Your task to perform on an android device: What's the weather? Image 0: 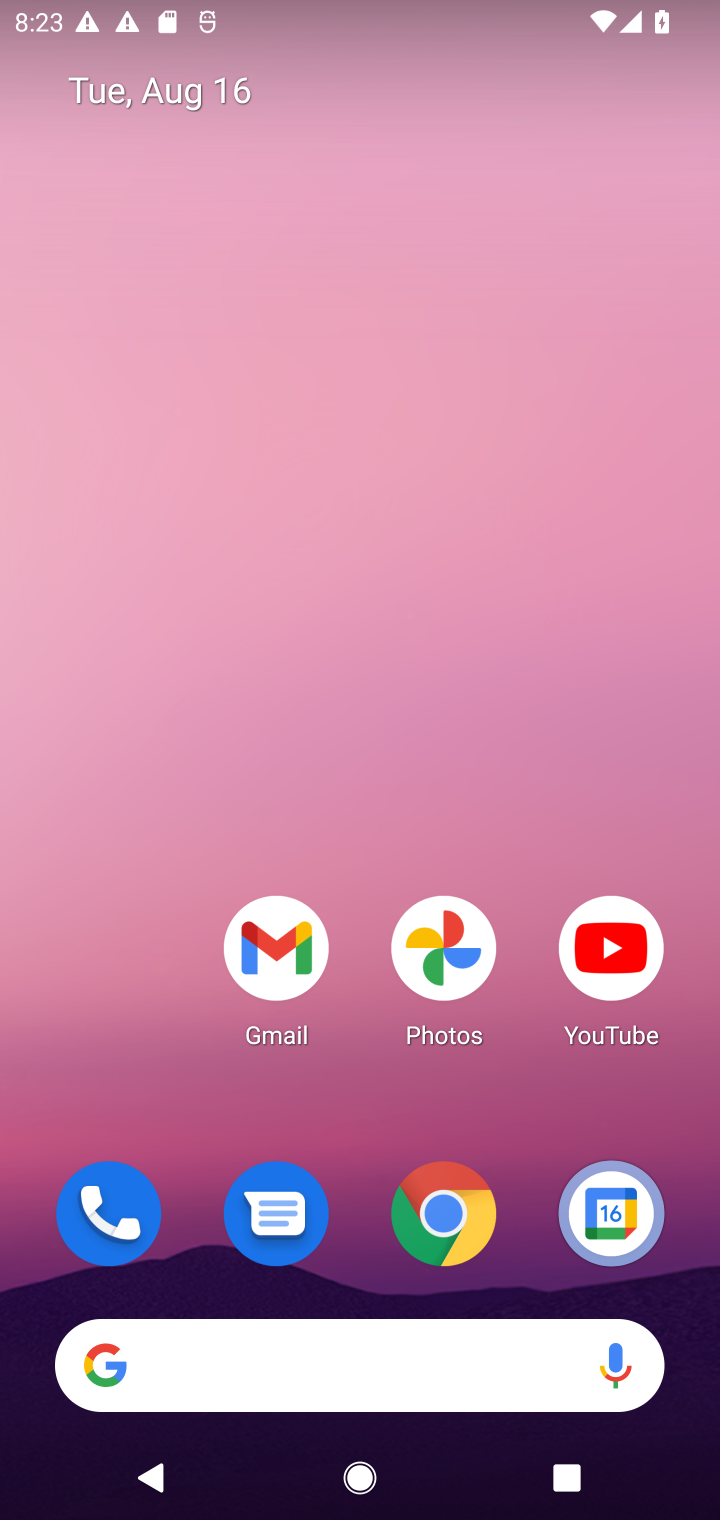
Step 0: drag from (333, 1278) to (428, 333)
Your task to perform on an android device: What's the weather? Image 1: 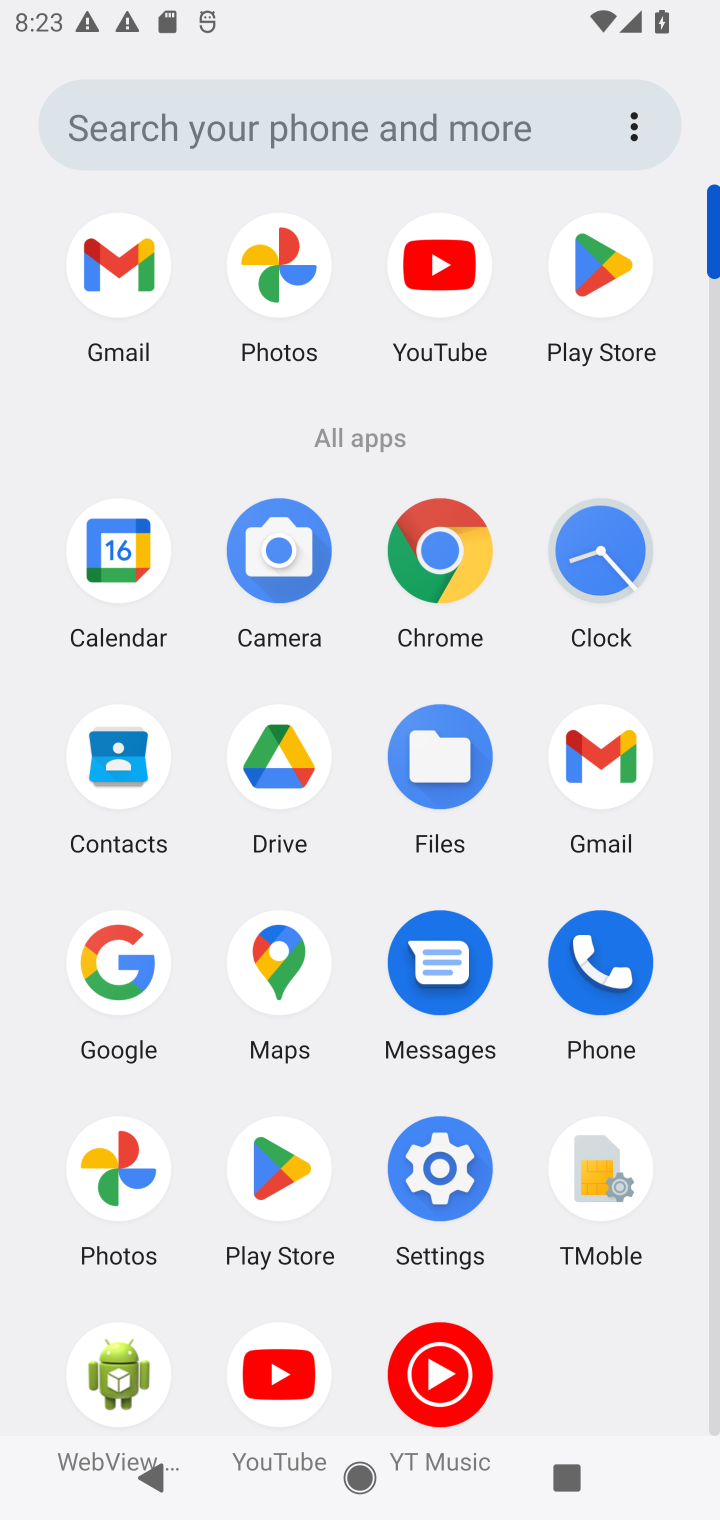
Step 1: click (424, 533)
Your task to perform on an android device: What's the weather? Image 2: 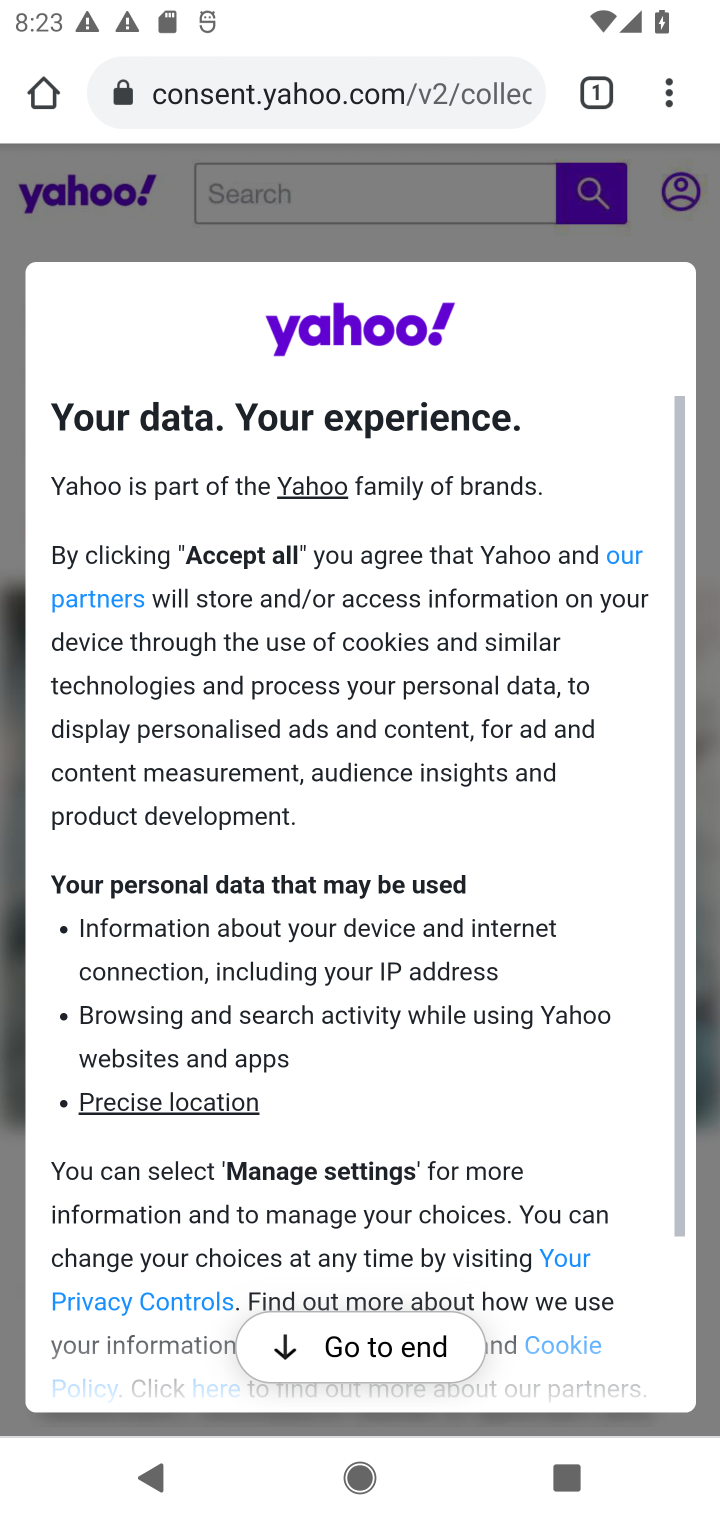
Step 2: click (674, 73)
Your task to perform on an android device: What's the weather? Image 3: 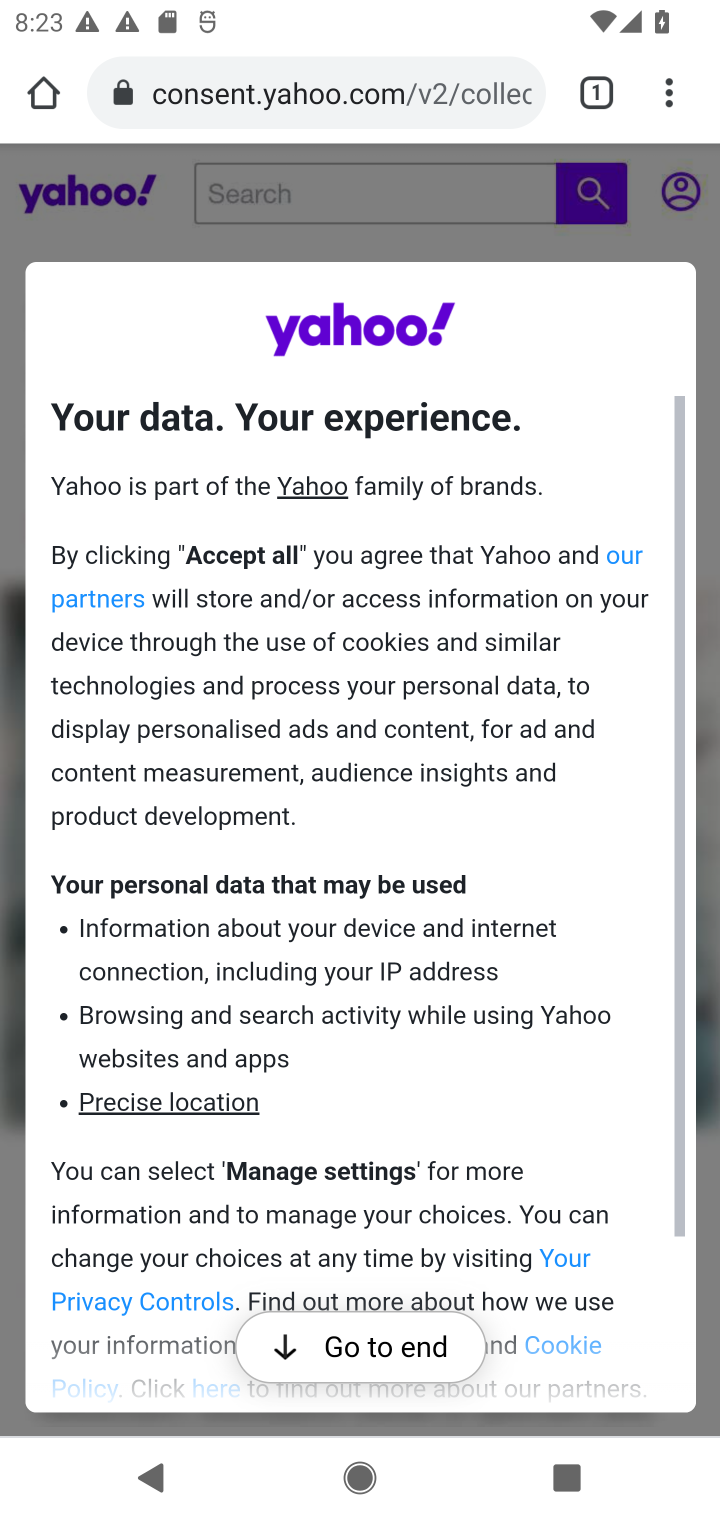
Step 3: click (665, 84)
Your task to perform on an android device: What's the weather? Image 4: 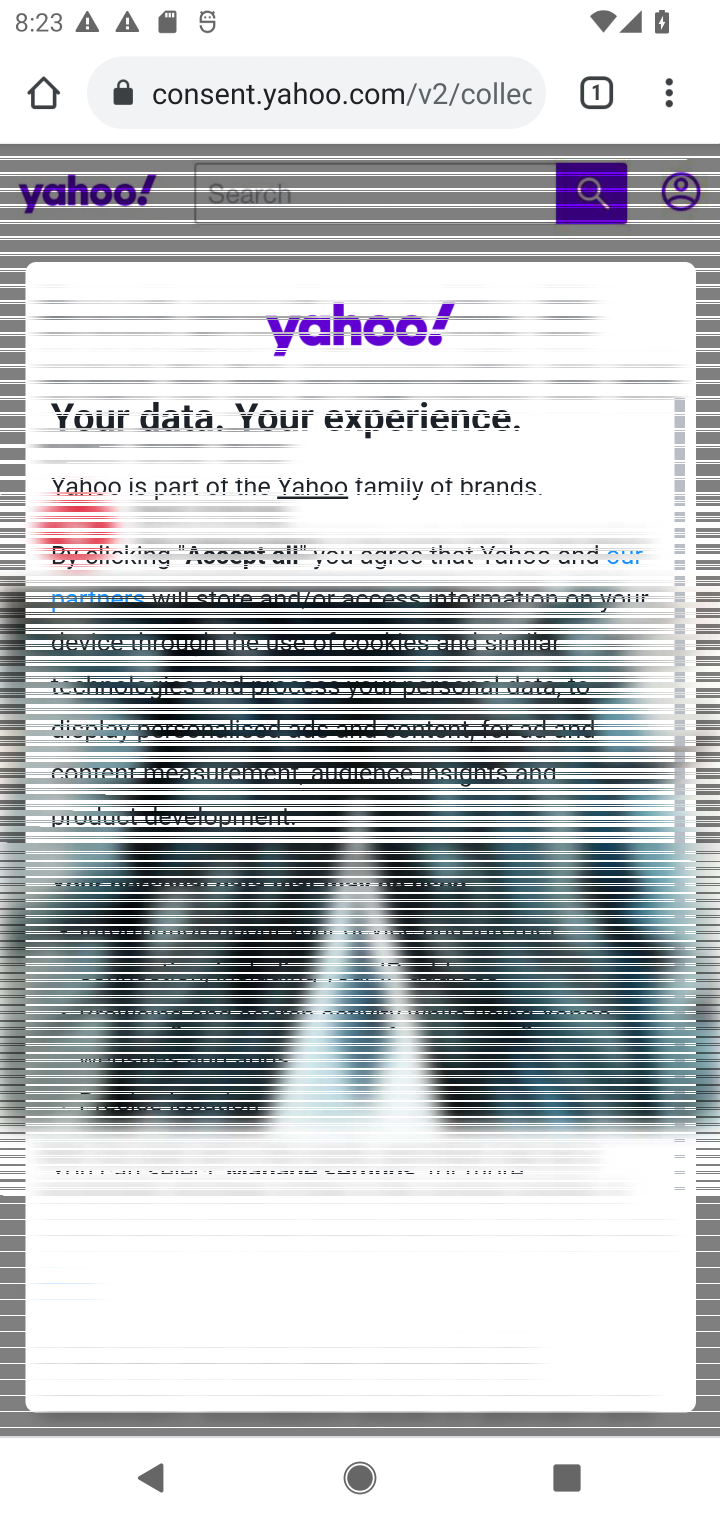
Step 4: click (665, 84)
Your task to perform on an android device: What's the weather? Image 5: 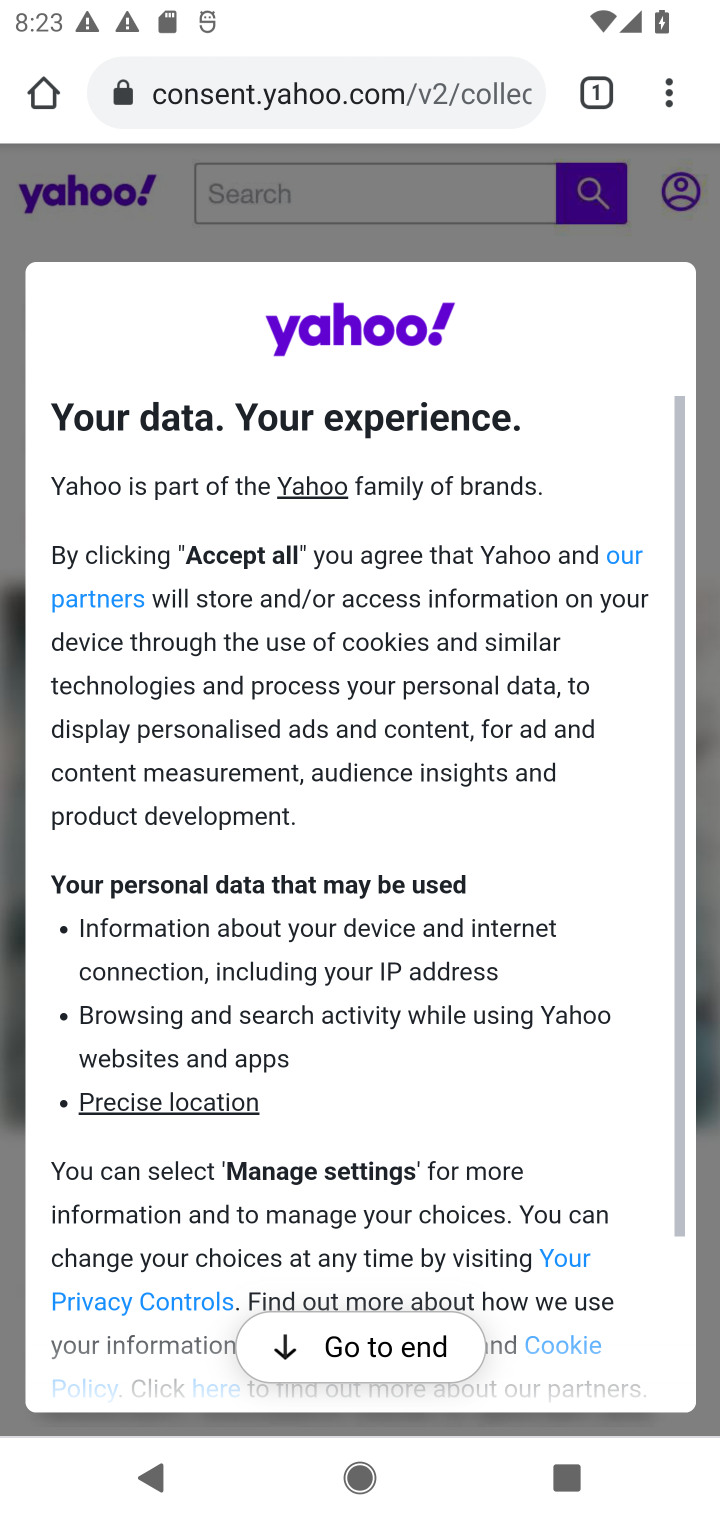
Step 5: click (665, 73)
Your task to perform on an android device: What's the weather? Image 6: 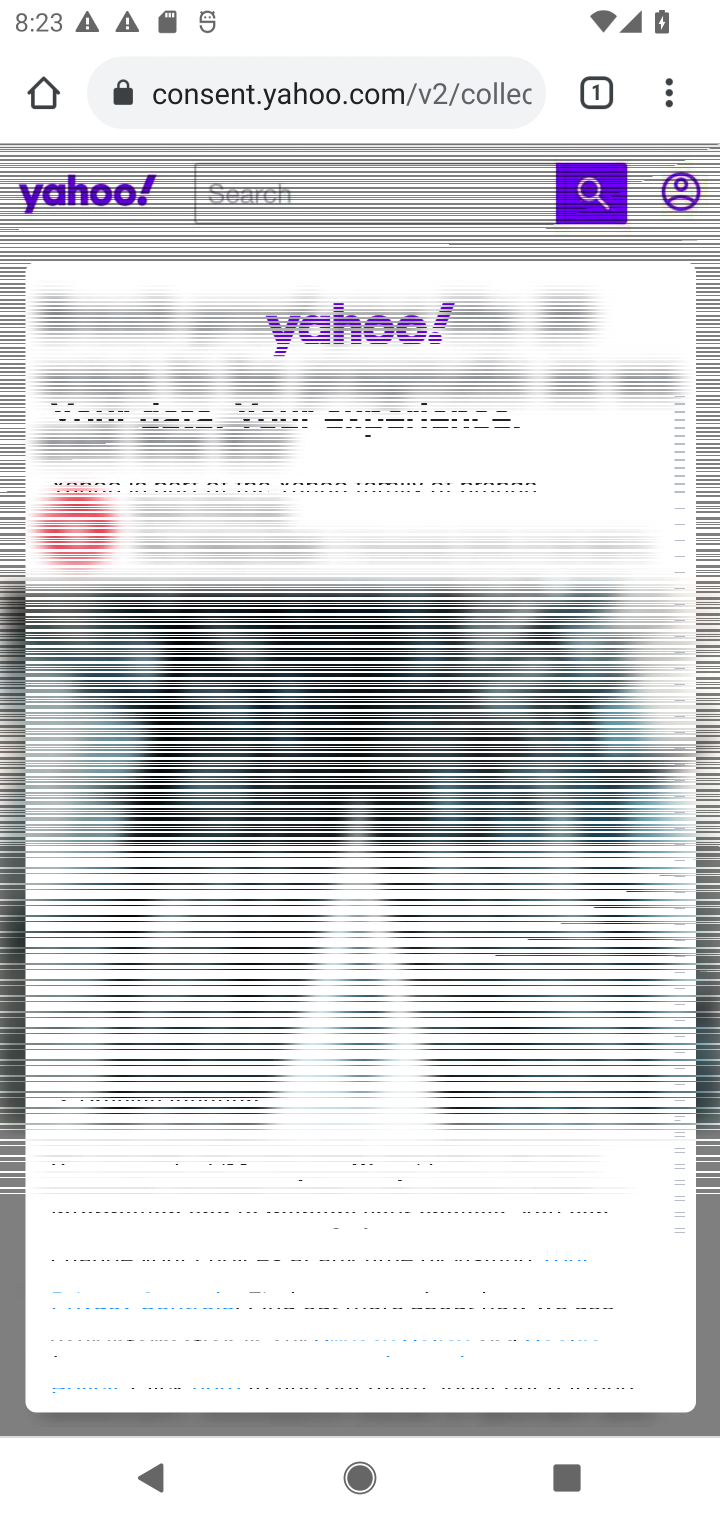
Step 6: click (705, 73)
Your task to perform on an android device: What's the weather? Image 7: 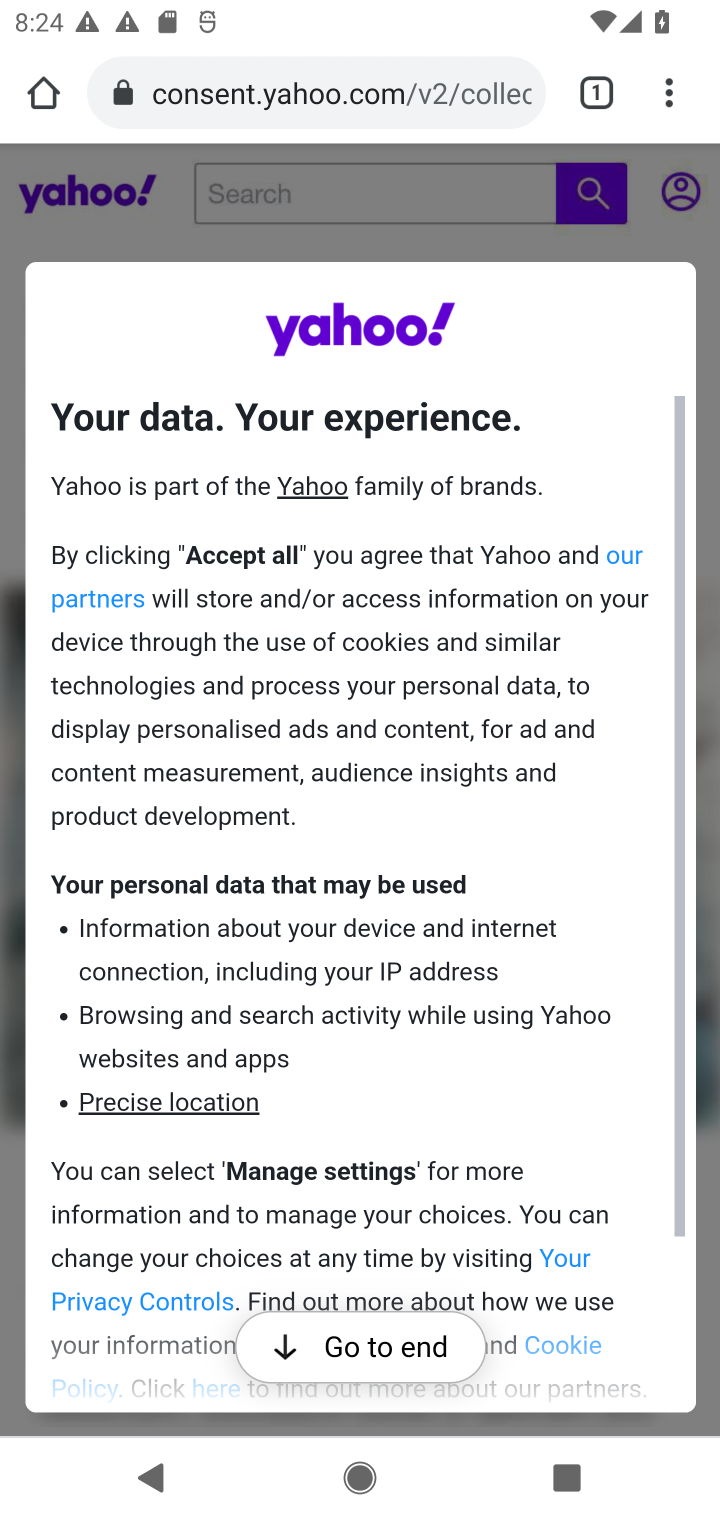
Step 7: click (675, 92)
Your task to perform on an android device: What's the weather? Image 8: 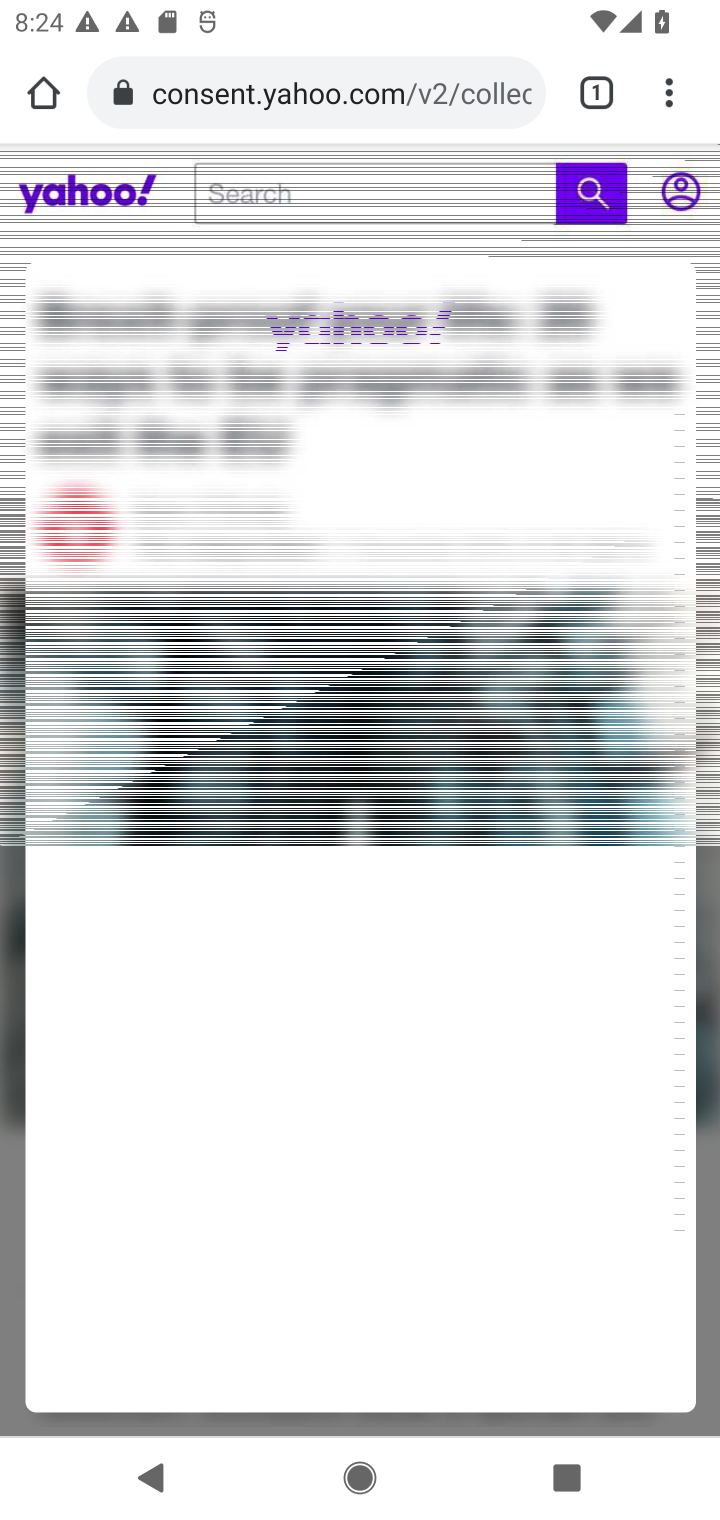
Step 8: click (675, 92)
Your task to perform on an android device: What's the weather? Image 9: 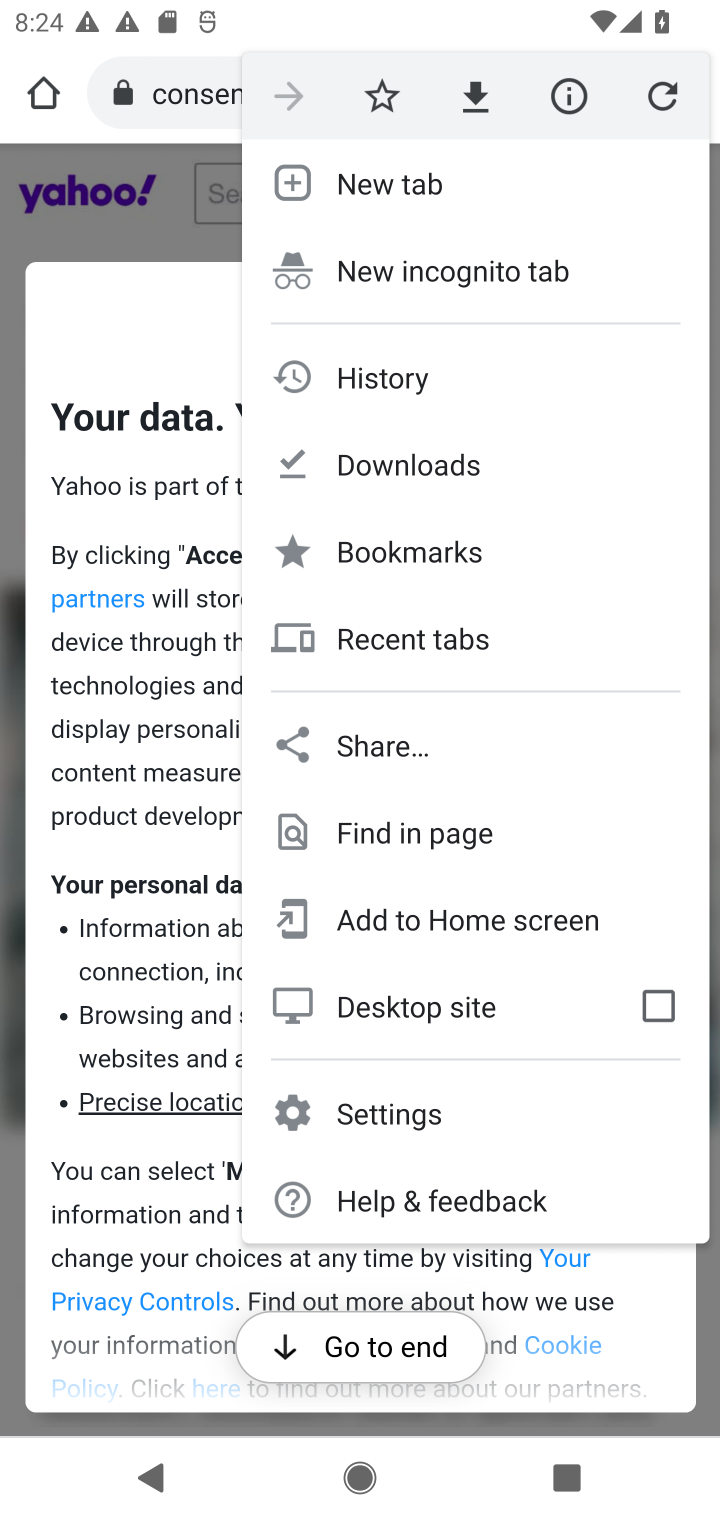
Step 9: click (371, 191)
Your task to perform on an android device: What's the weather? Image 10: 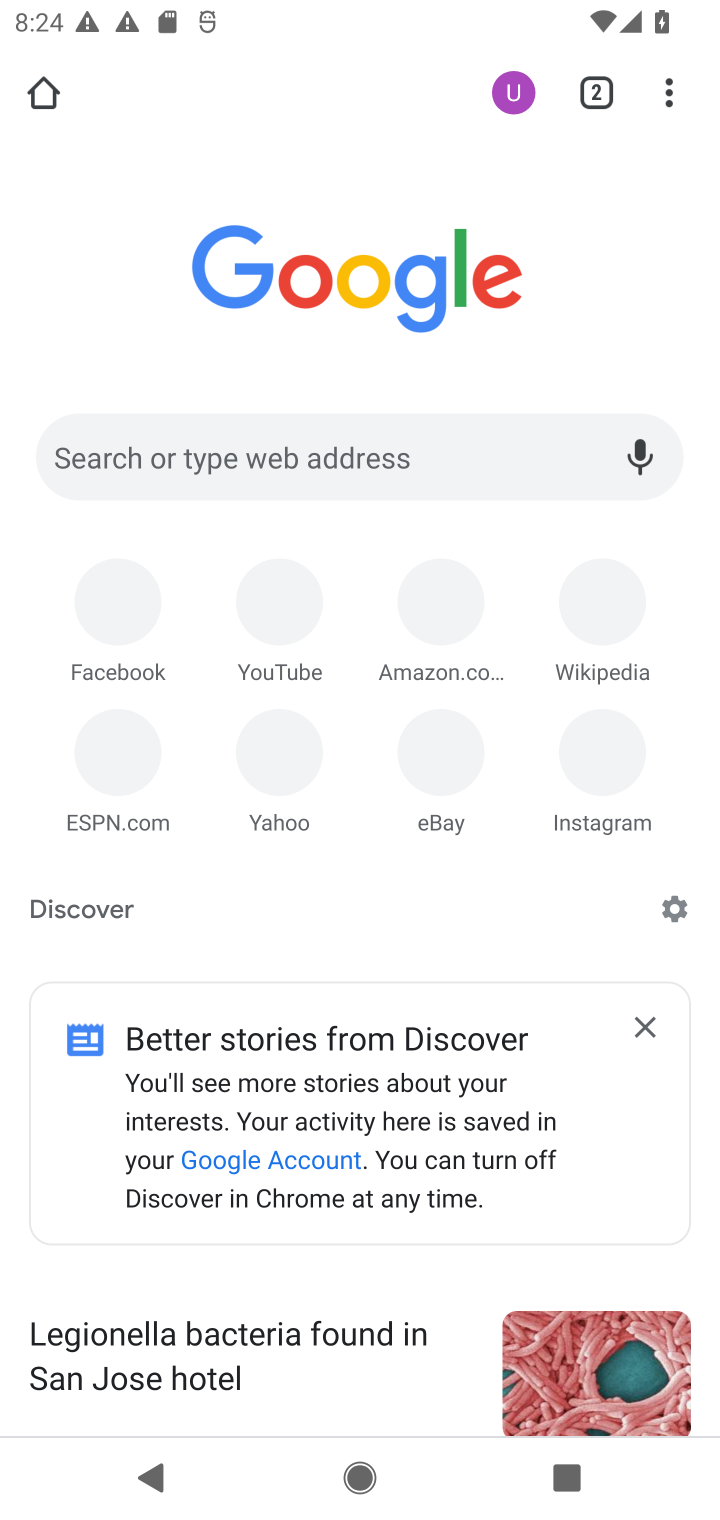
Step 10: click (361, 458)
Your task to perform on an android device: What's the weather? Image 11: 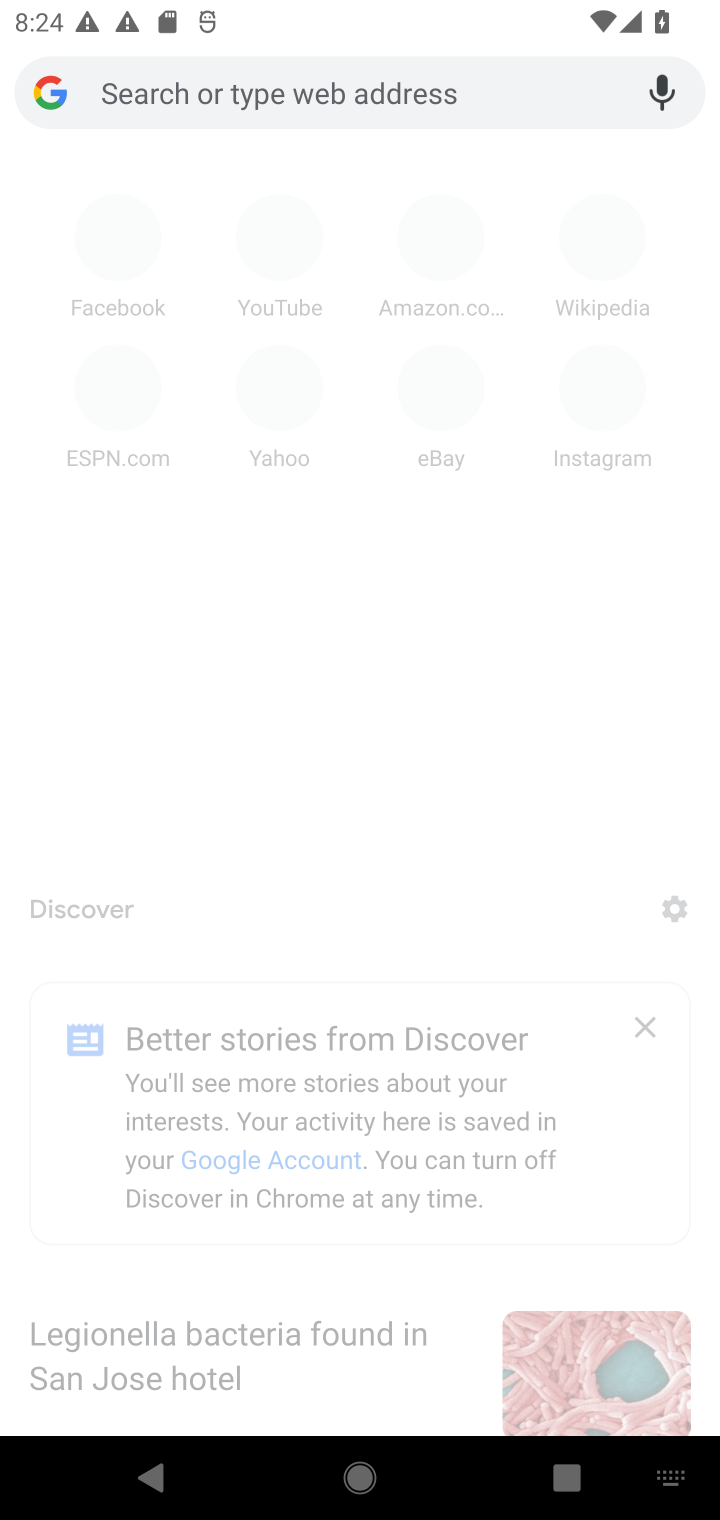
Step 11: type "What's the weather? "
Your task to perform on an android device: What's the weather? Image 12: 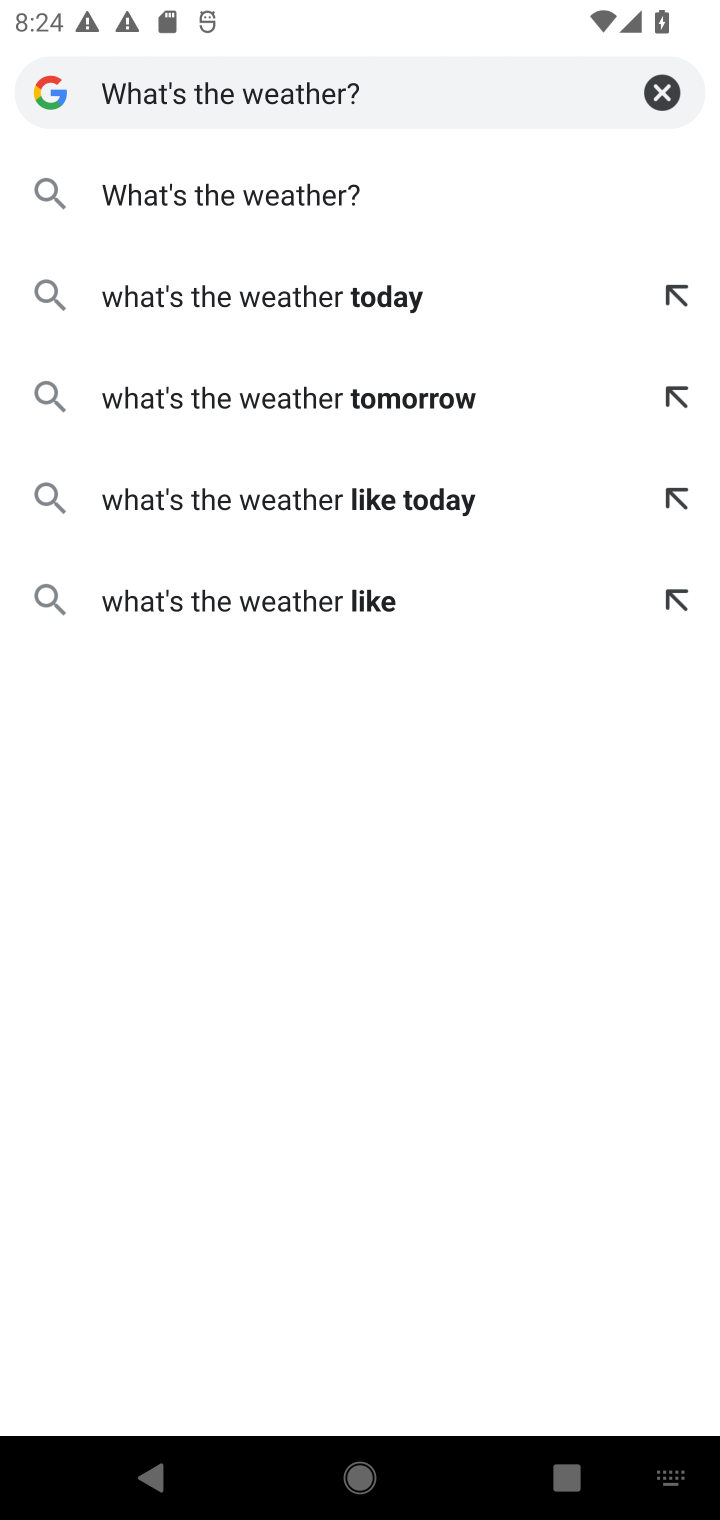
Step 12: click (343, 176)
Your task to perform on an android device: What's the weather? Image 13: 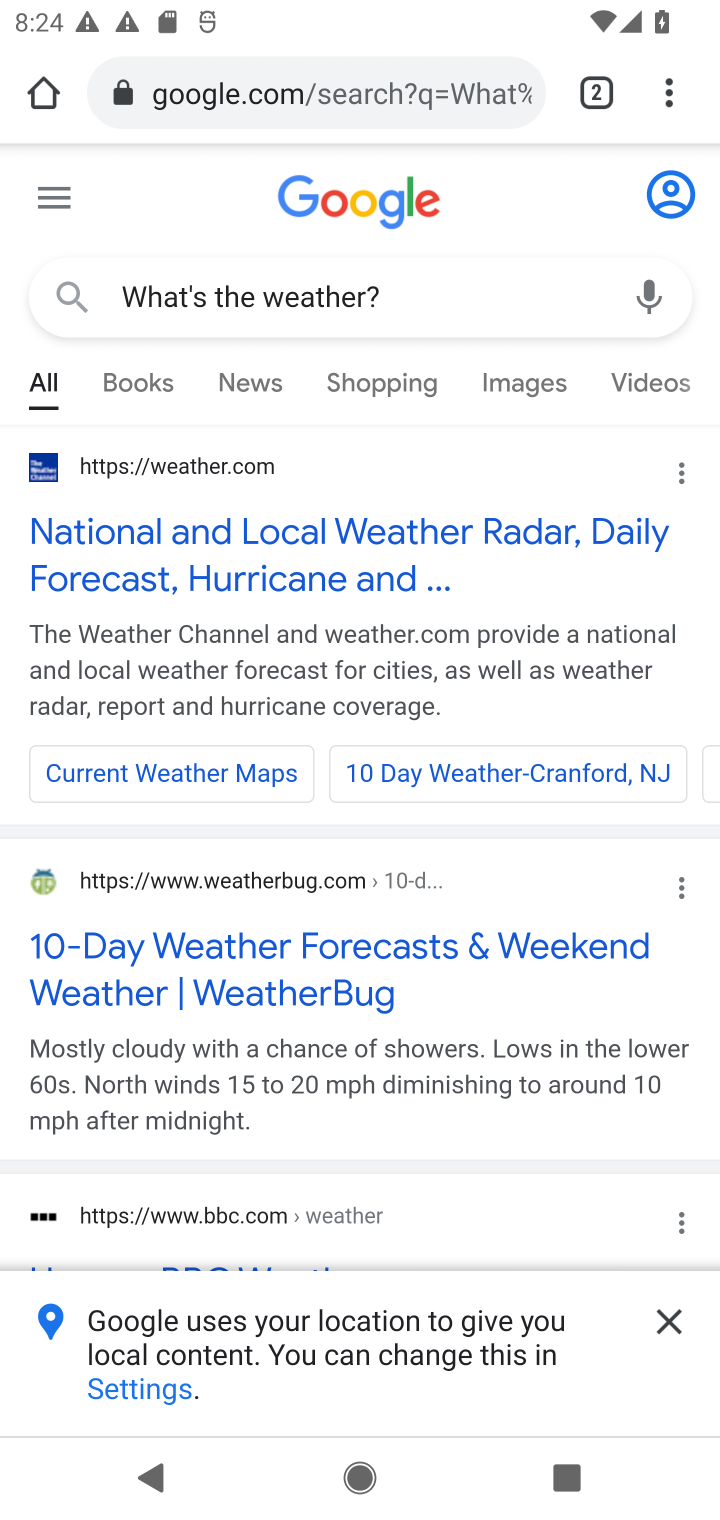
Step 13: task complete